Your task to perform on an android device: Clear the shopping cart on amazon. Image 0: 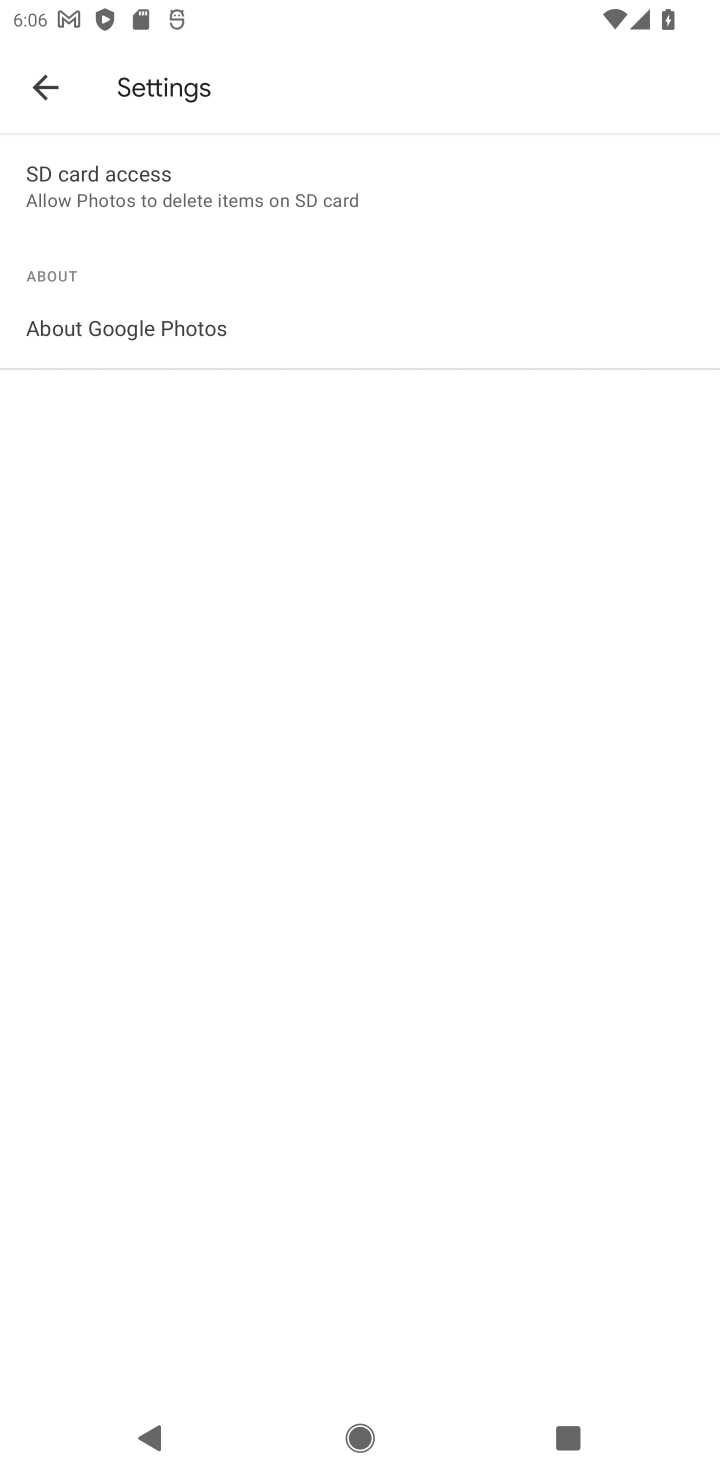
Step 0: press home button
Your task to perform on an android device: Clear the shopping cart on amazon. Image 1: 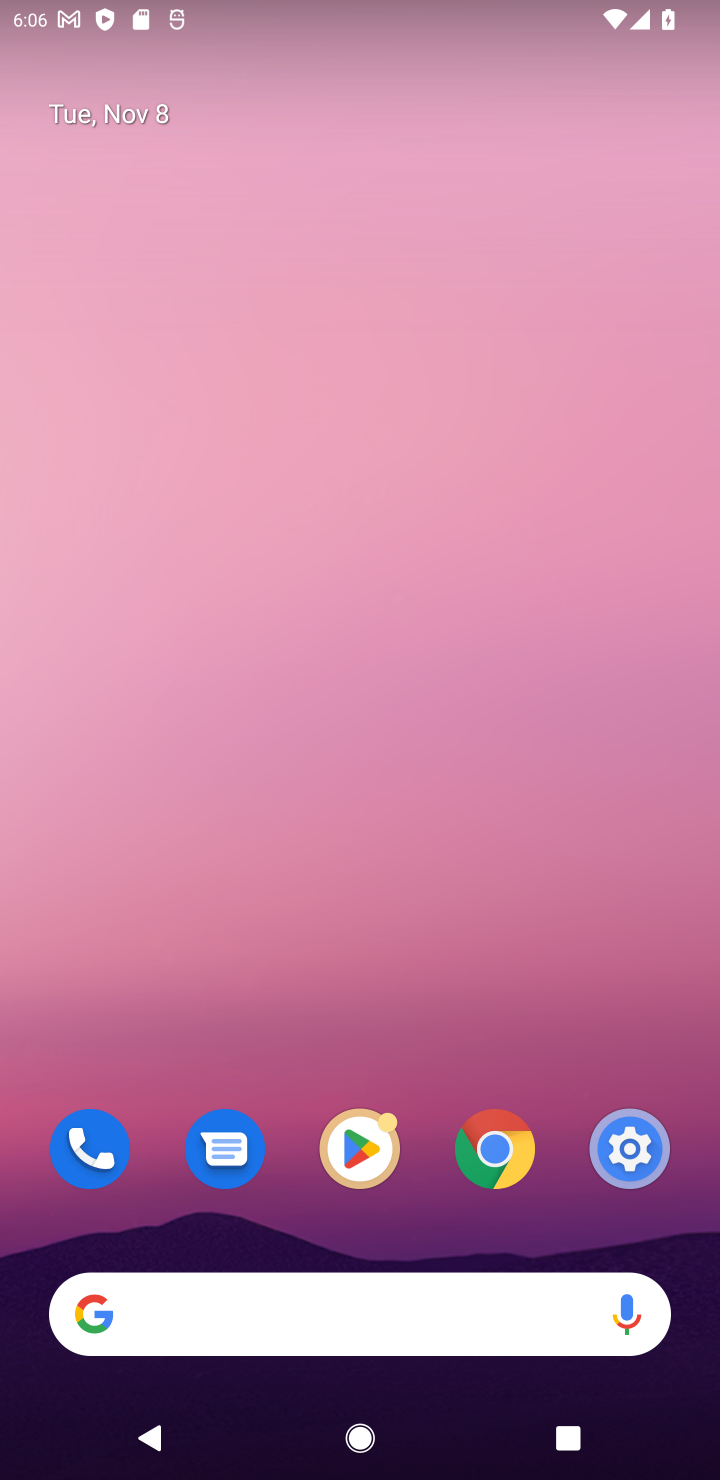
Step 1: click (508, 1129)
Your task to perform on an android device: Clear the shopping cart on amazon. Image 2: 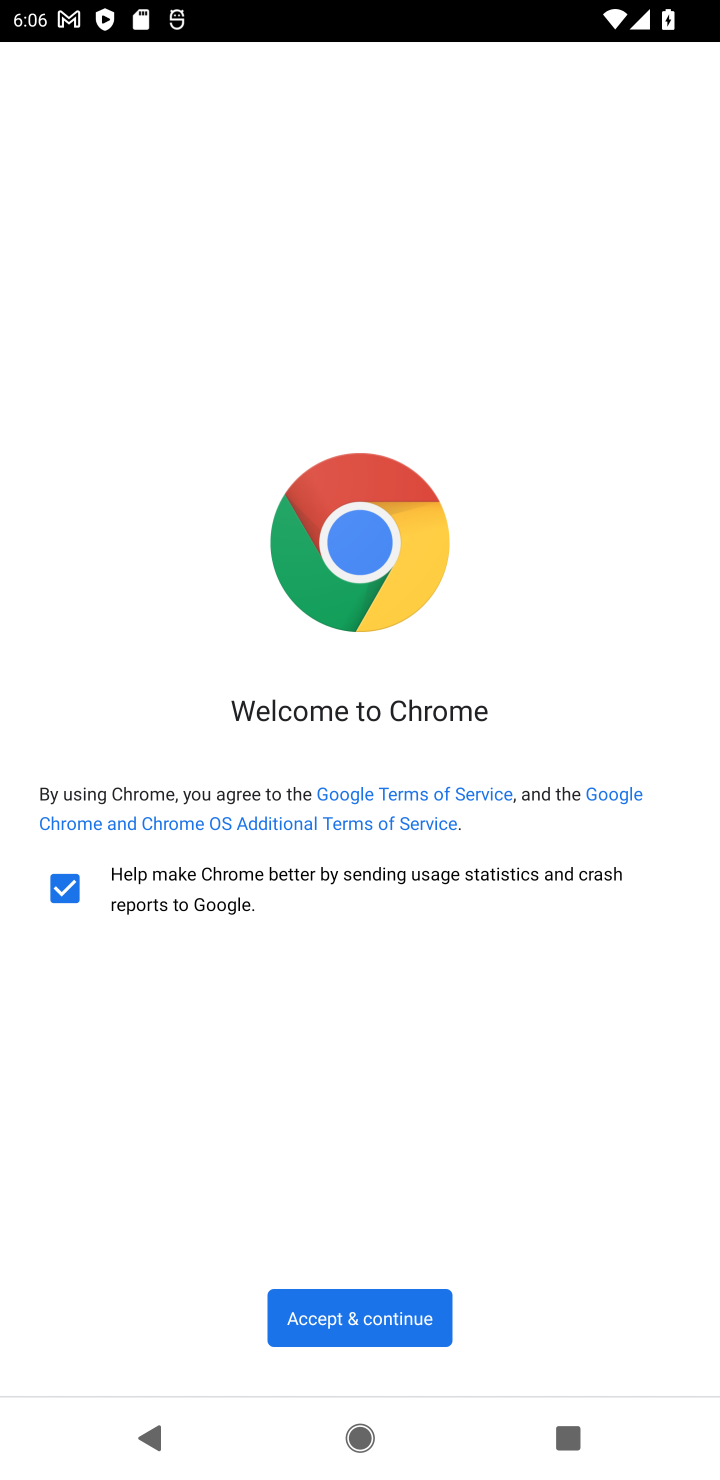
Step 2: click (396, 1315)
Your task to perform on an android device: Clear the shopping cart on amazon. Image 3: 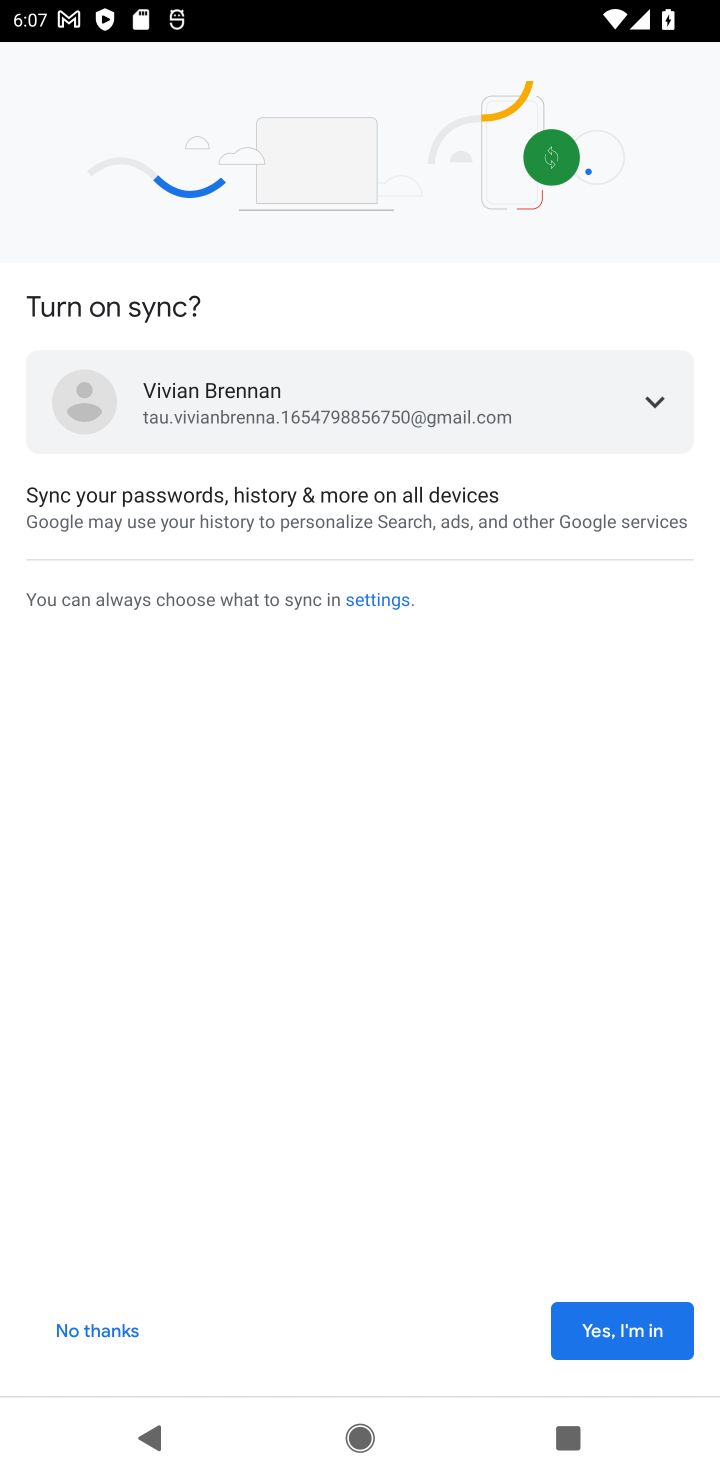
Step 3: click (614, 1329)
Your task to perform on an android device: Clear the shopping cart on amazon. Image 4: 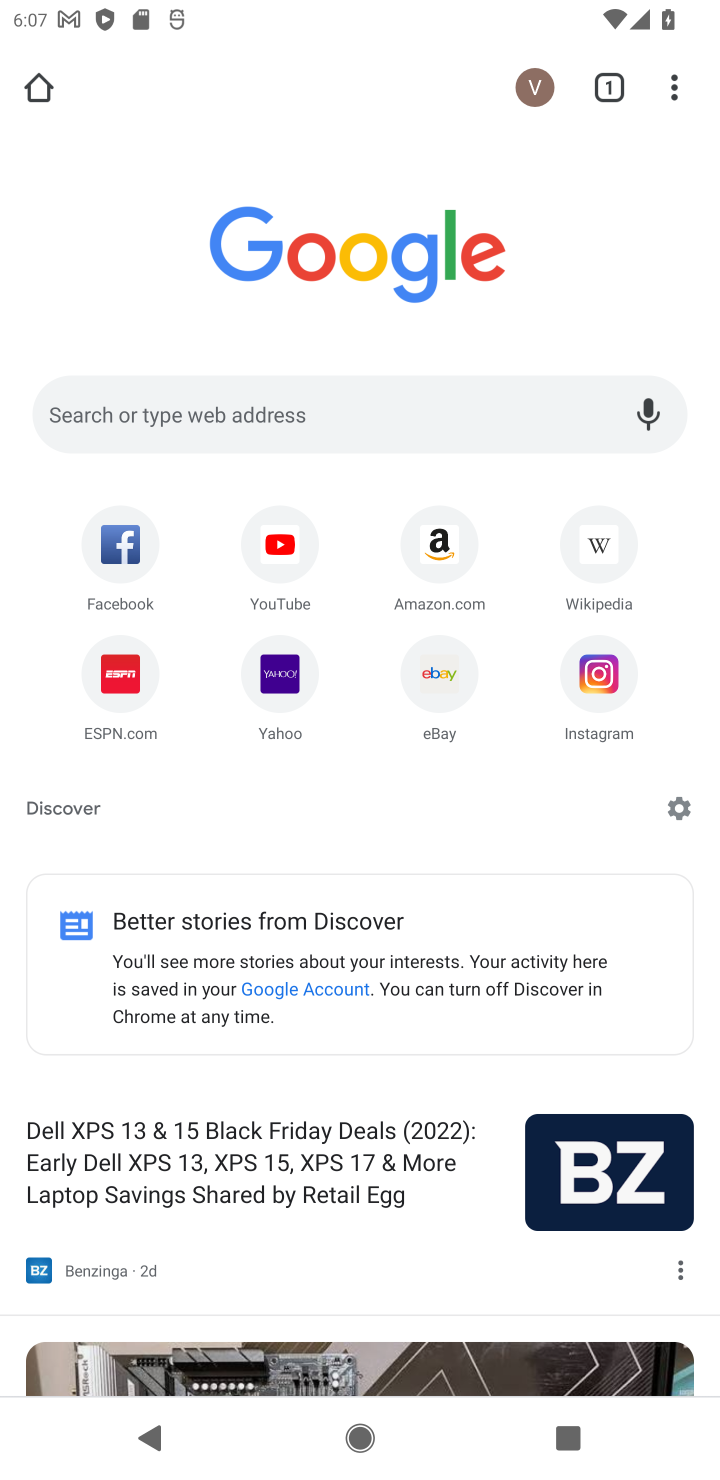
Step 4: click (502, 417)
Your task to perform on an android device: Clear the shopping cart on amazon. Image 5: 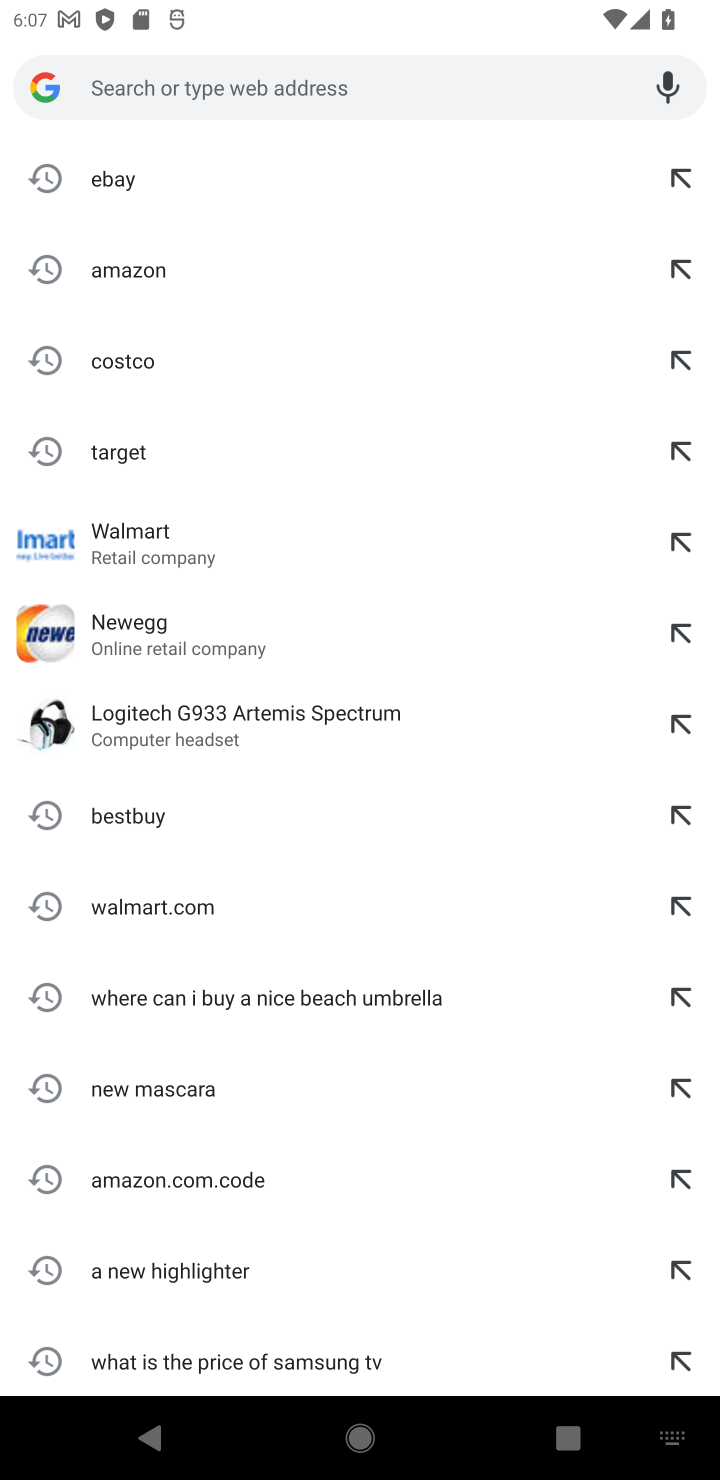
Step 5: type "amazon"
Your task to perform on an android device: Clear the shopping cart on amazon. Image 6: 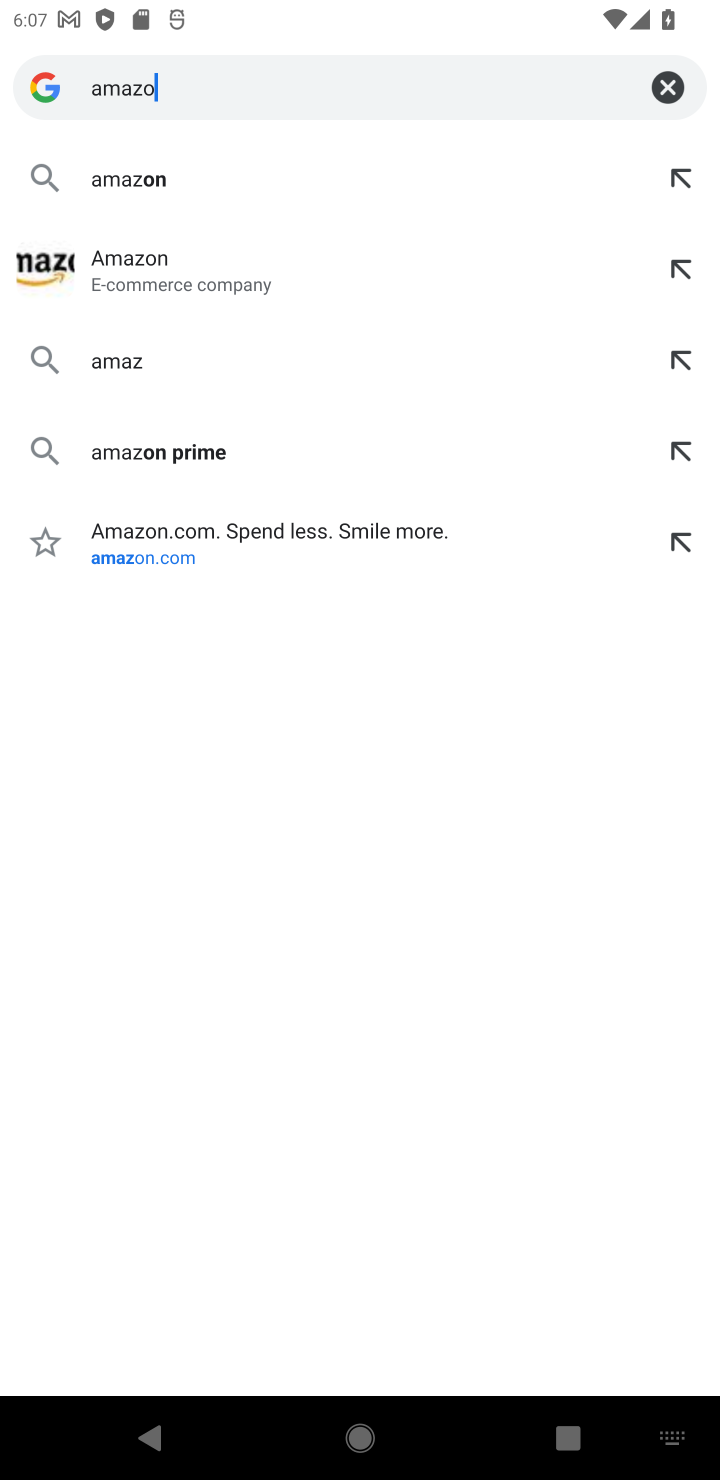
Step 6: press enter
Your task to perform on an android device: Clear the shopping cart on amazon. Image 7: 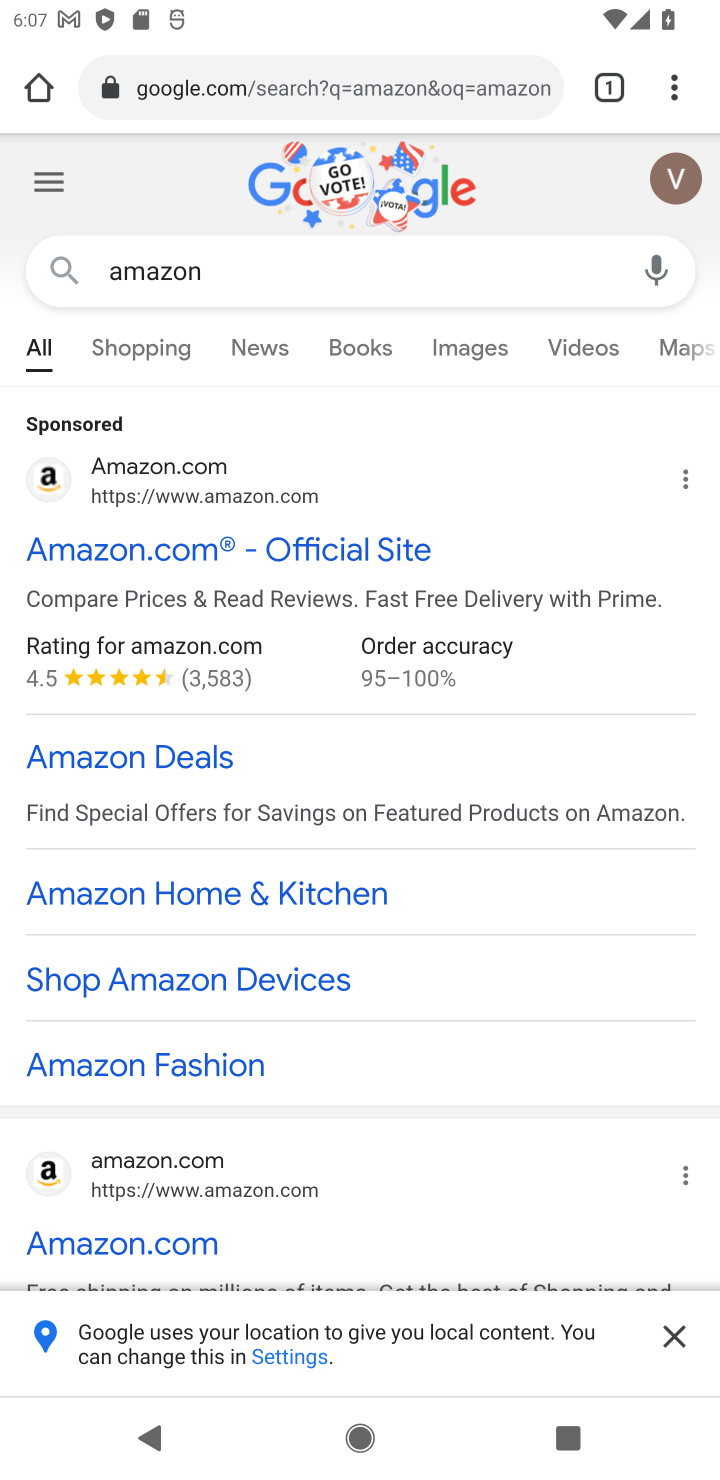
Step 7: click (191, 464)
Your task to perform on an android device: Clear the shopping cart on amazon. Image 8: 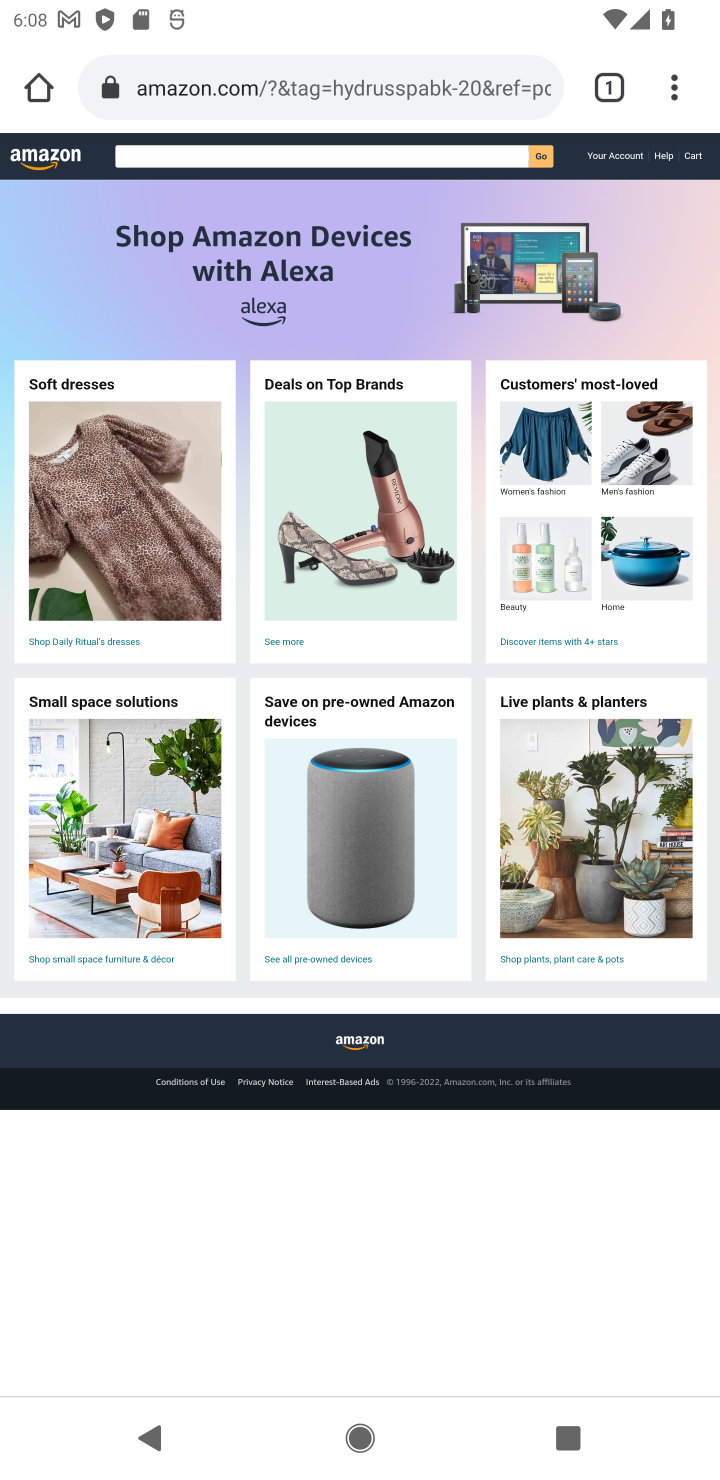
Step 8: click (436, 151)
Your task to perform on an android device: Clear the shopping cart on amazon. Image 9: 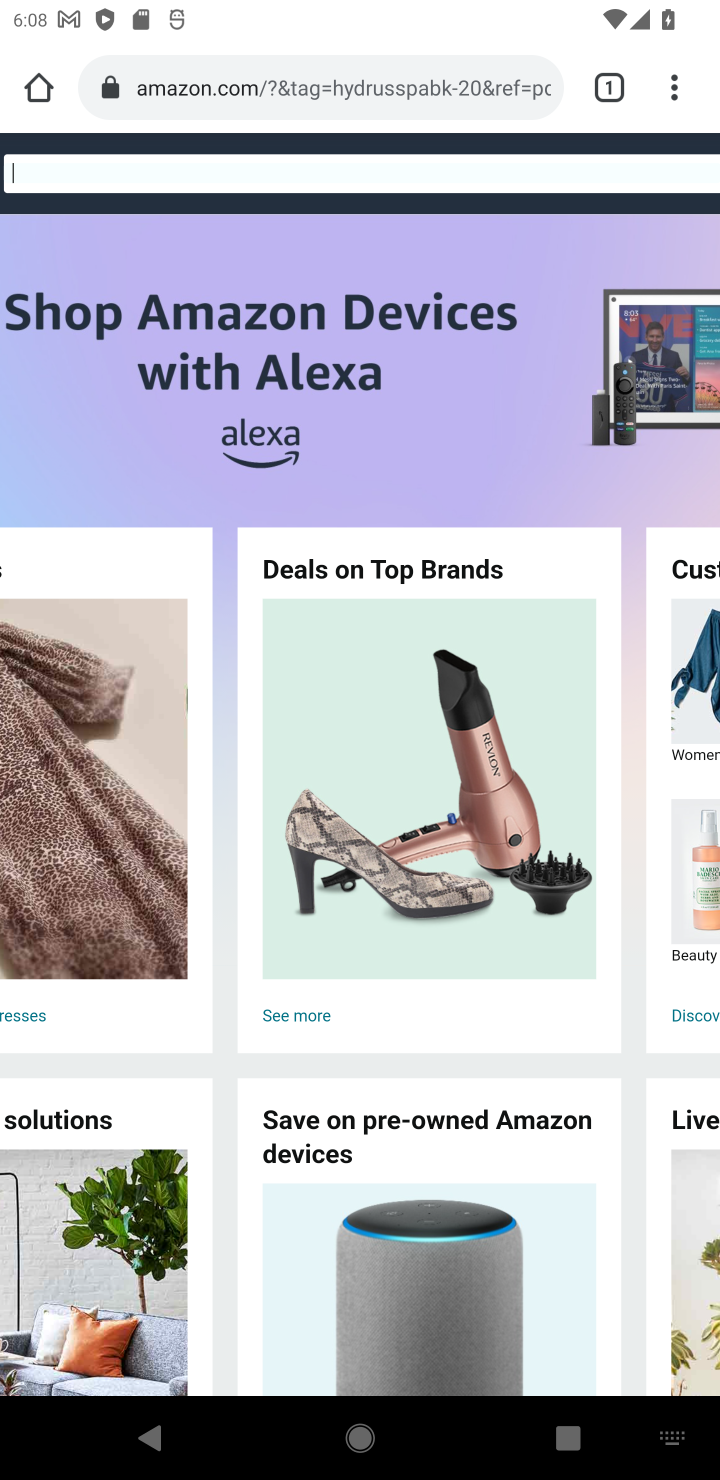
Step 9: task complete